Your task to perform on an android device: turn on improve location accuracy Image 0: 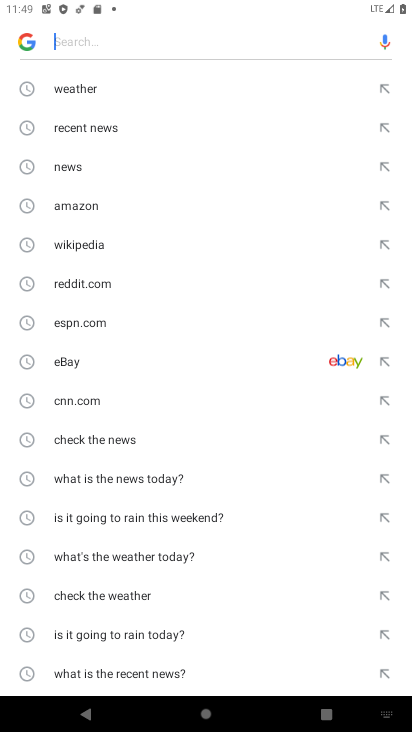
Step 0: press home button
Your task to perform on an android device: turn on improve location accuracy Image 1: 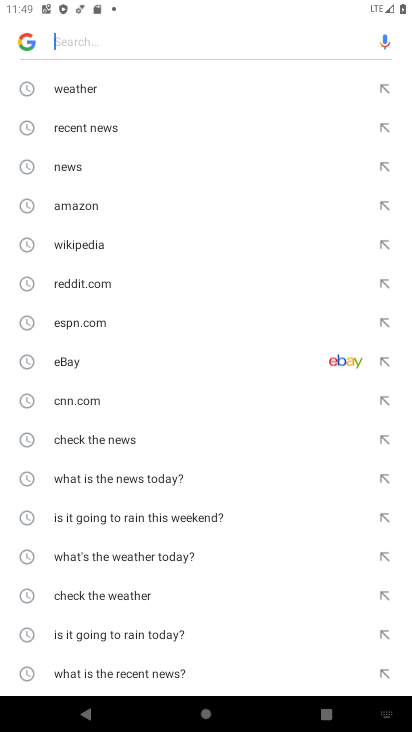
Step 1: press home button
Your task to perform on an android device: turn on improve location accuracy Image 2: 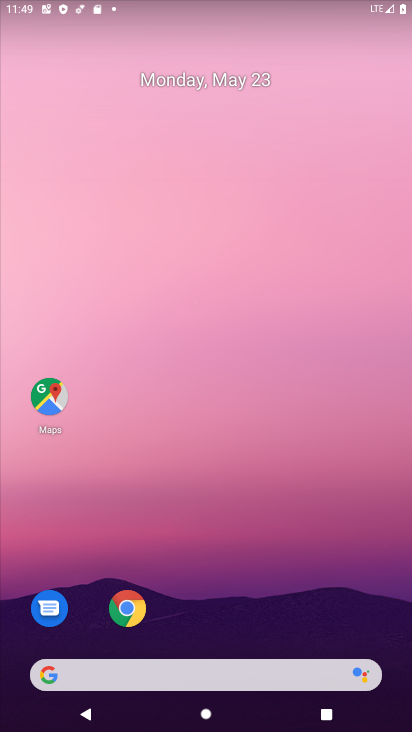
Step 2: drag from (214, 644) to (222, 54)
Your task to perform on an android device: turn on improve location accuracy Image 3: 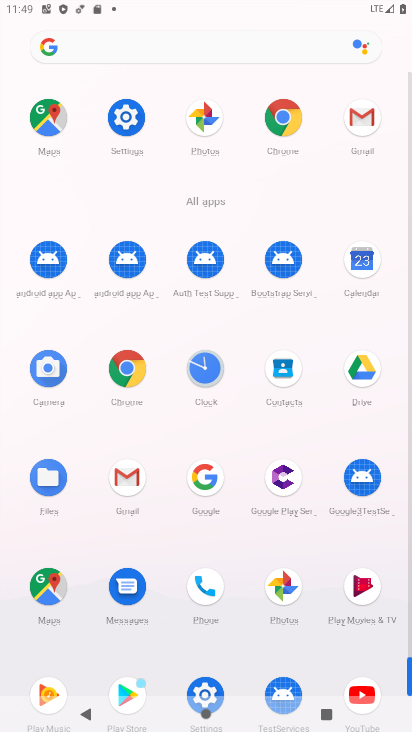
Step 3: click (125, 111)
Your task to perform on an android device: turn on improve location accuracy Image 4: 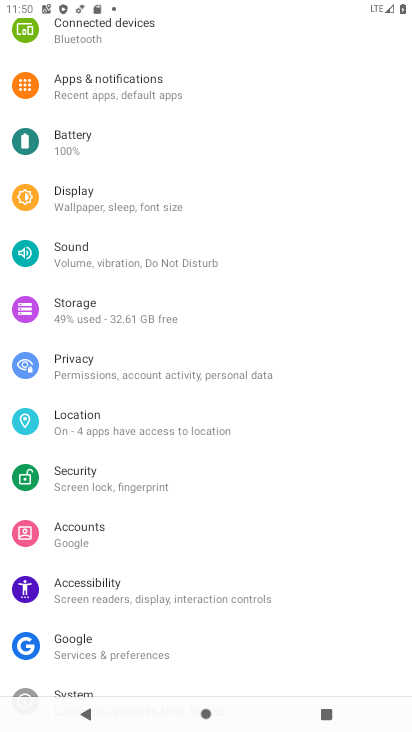
Step 4: click (106, 416)
Your task to perform on an android device: turn on improve location accuracy Image 5: 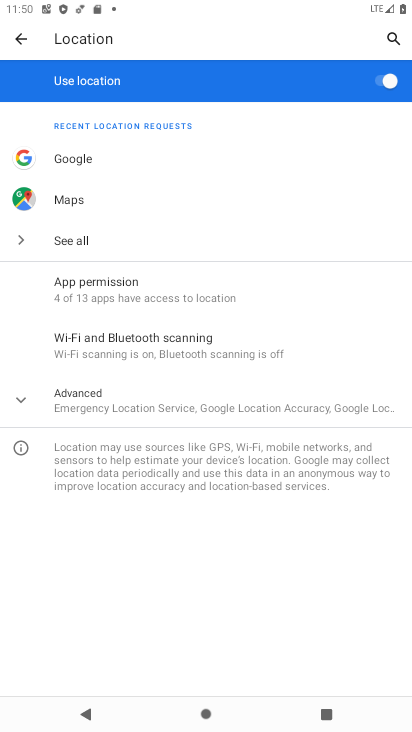
Step 5: click (23, 395)
Your task to perform on an android device: turn on improve location accuracy Image 6: 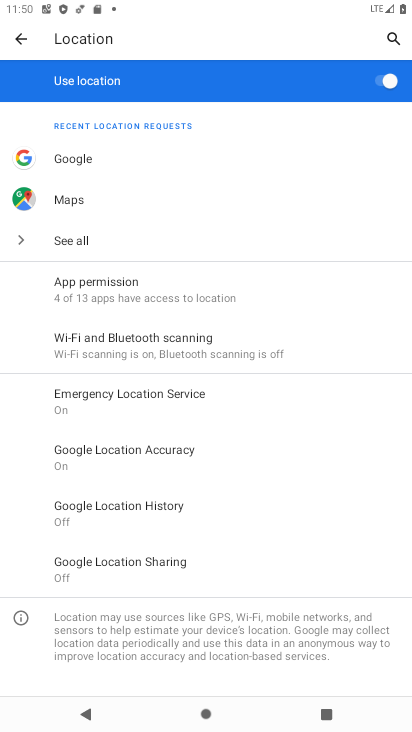
Step 6: click (90, 456)
Your task to perform on an android device: turn on improve location accuracy Image 7: 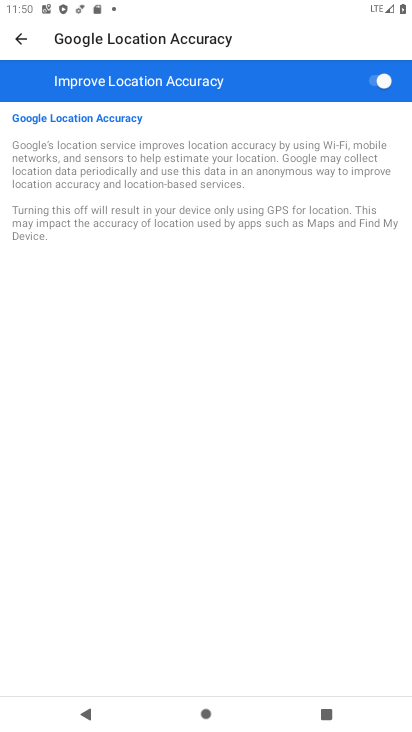
Step 7: task complete